Your task to perform on an android device: What's the news in Vietnam? Image 0: 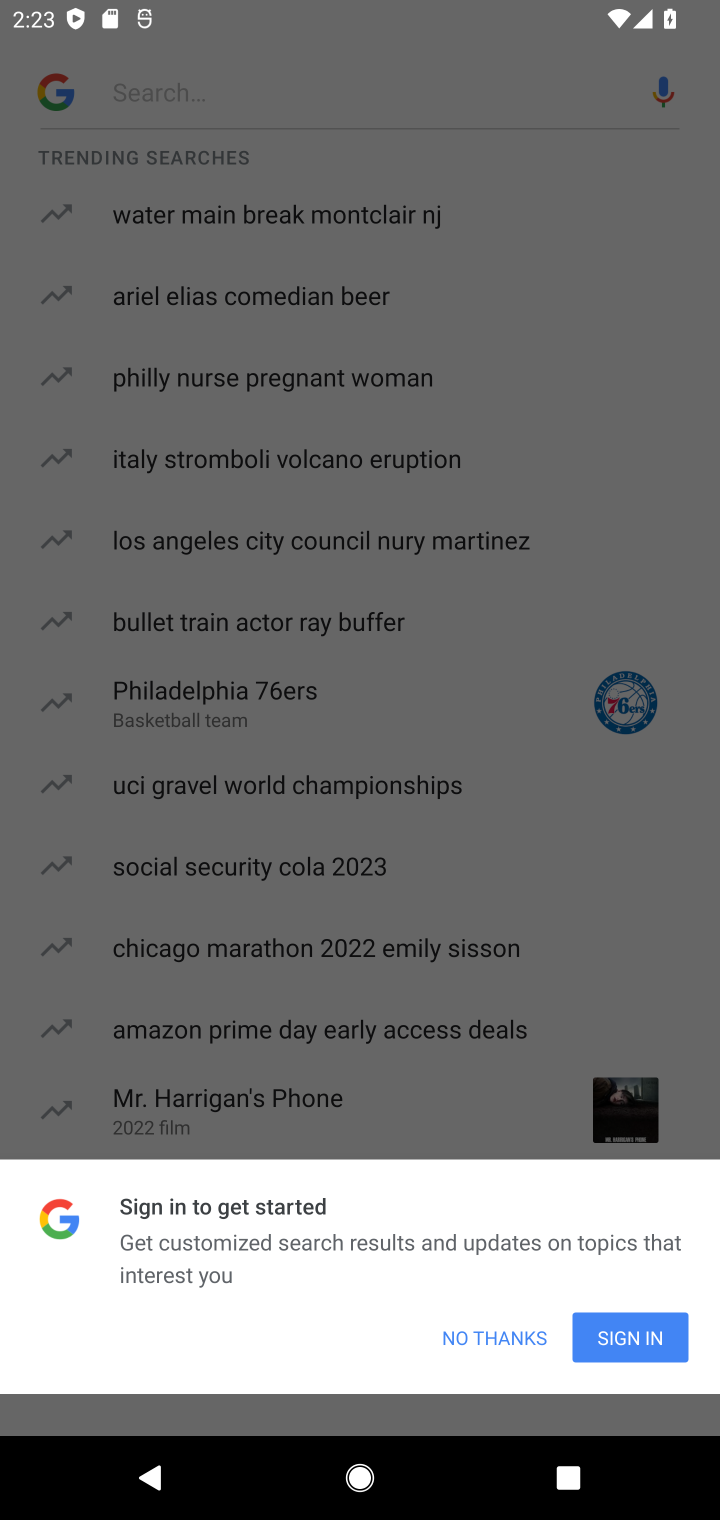
Step 0: click (484, 1333)
Your task to perform on an android device: What's the news in Vietnam? Image 1: 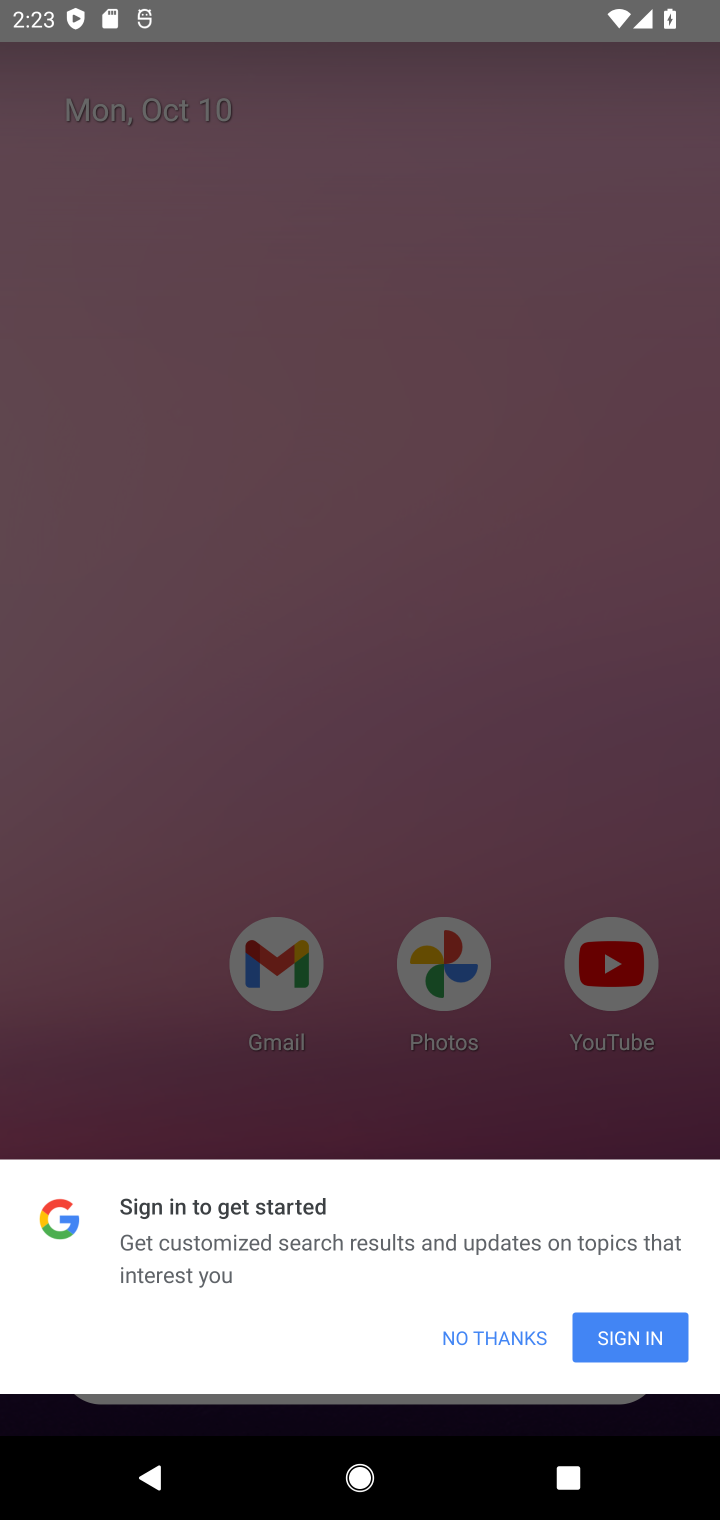
Step 1: click (494, 1325)
Your task to perform on an android device: What's the news in Vietnam? Image 2: 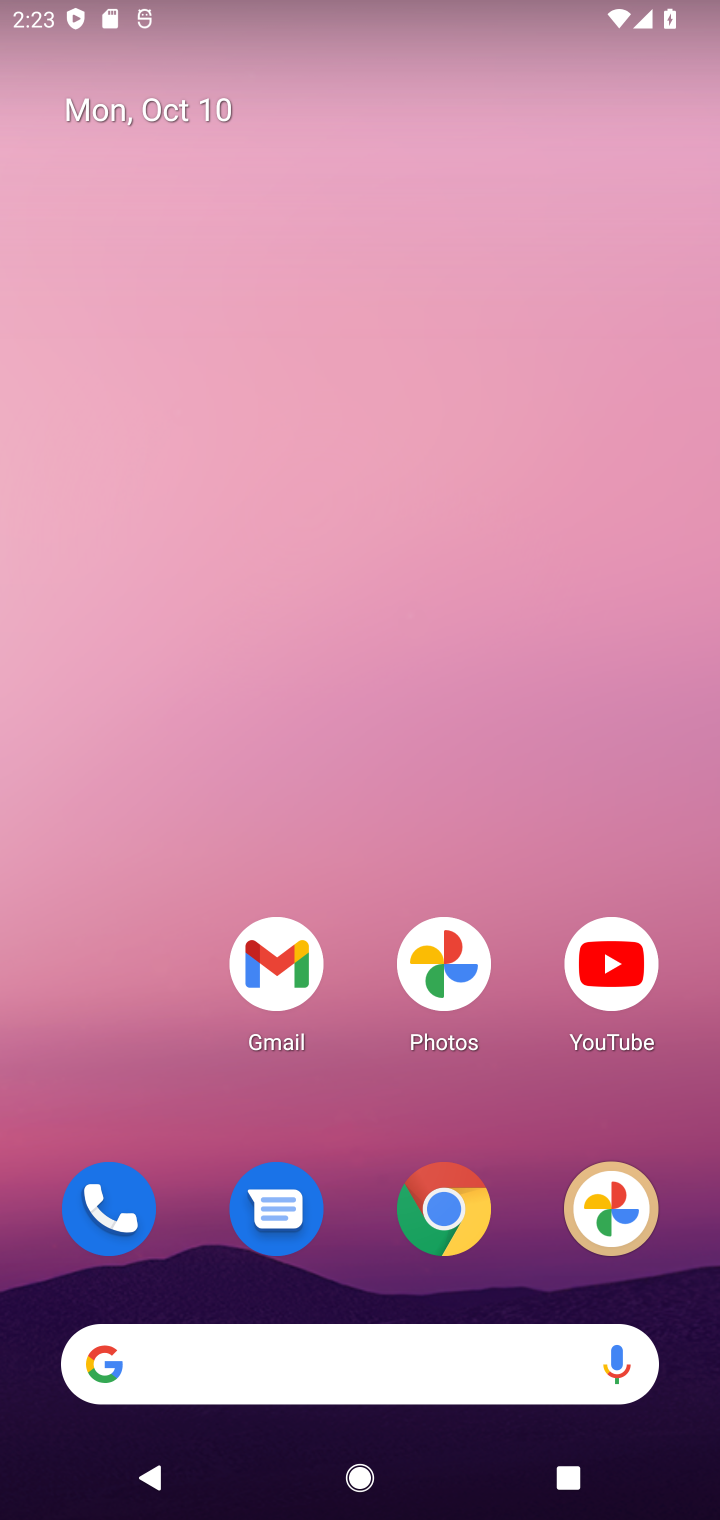
Step 2: click (464, 1177)
Your task to perform on an android device: What's the news in Vietnam? Image 3: 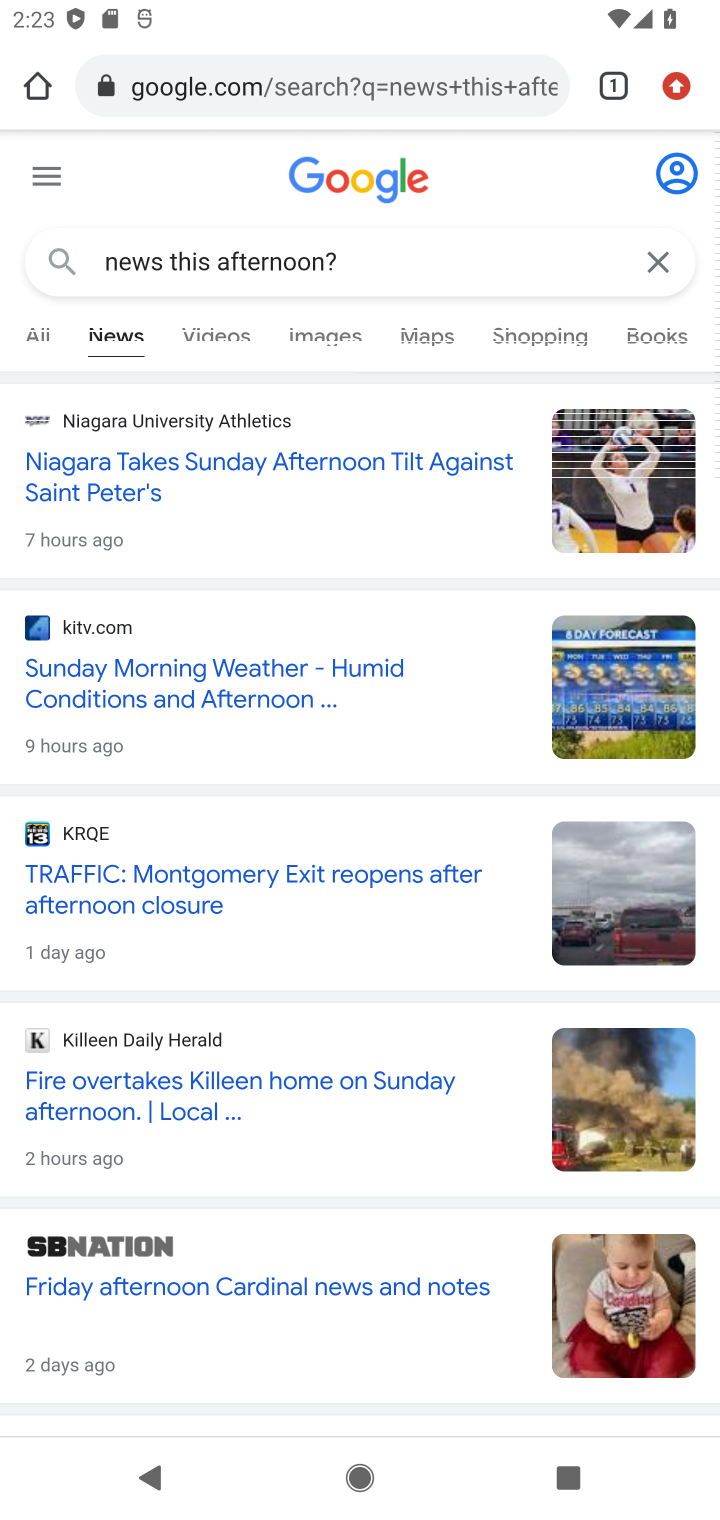
Step 3: click (404, 258)
Your task to perform on an android device: What's the news in Vietnam? Image 4: 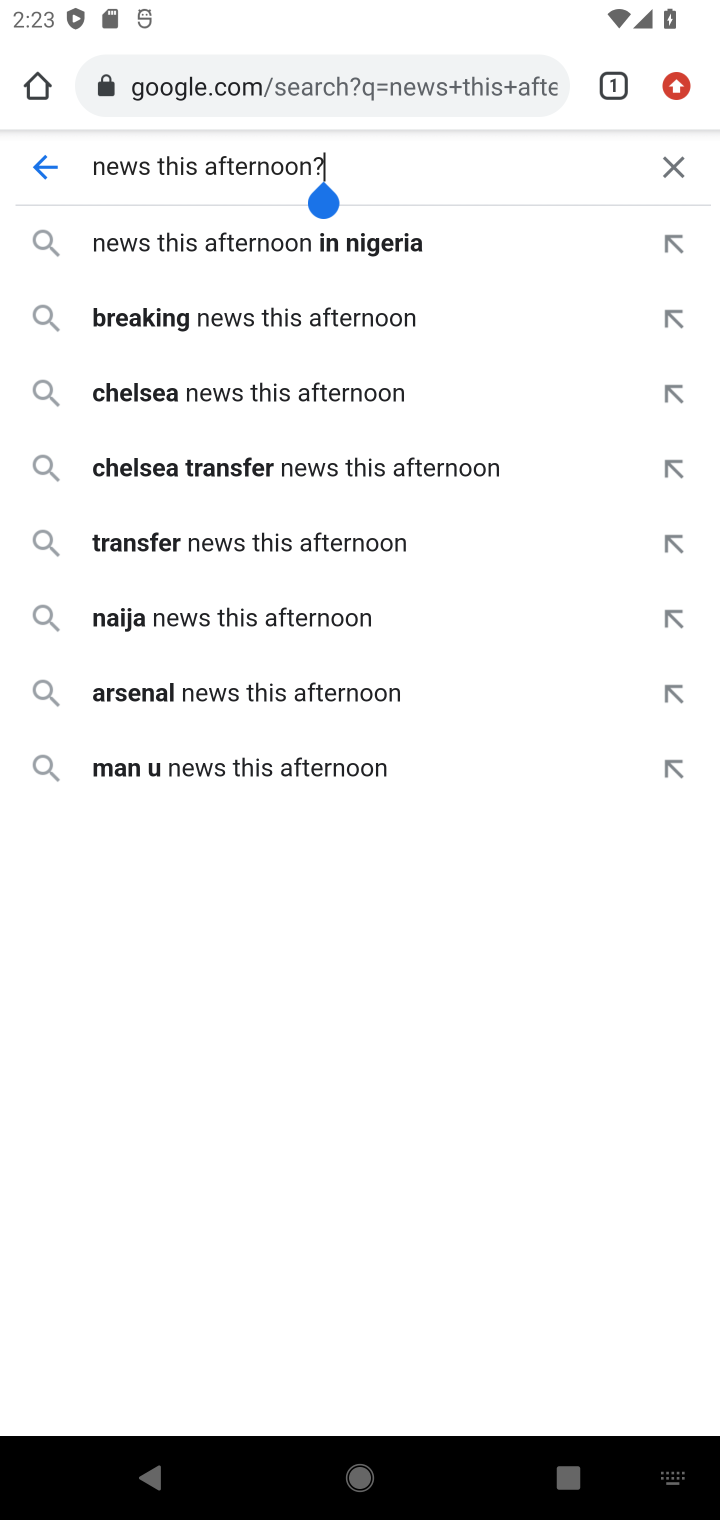
Step 4: click (665, 171)
Your task to perform on an android device: What's the news in Vietnam? Image 5: 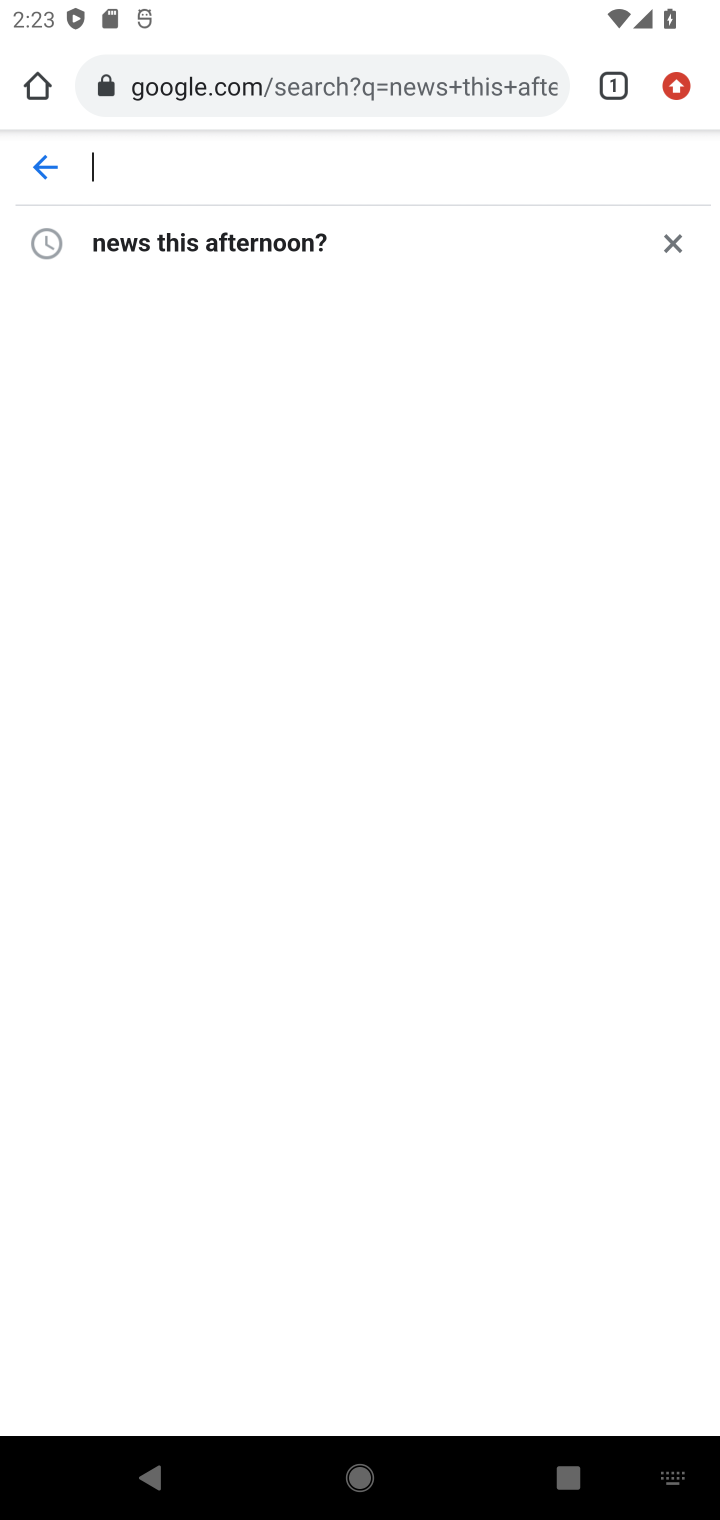
Step 5: type "news in Vietnam?"
Your task to perform on an android device: What's the news in Vietnam? Image 6: 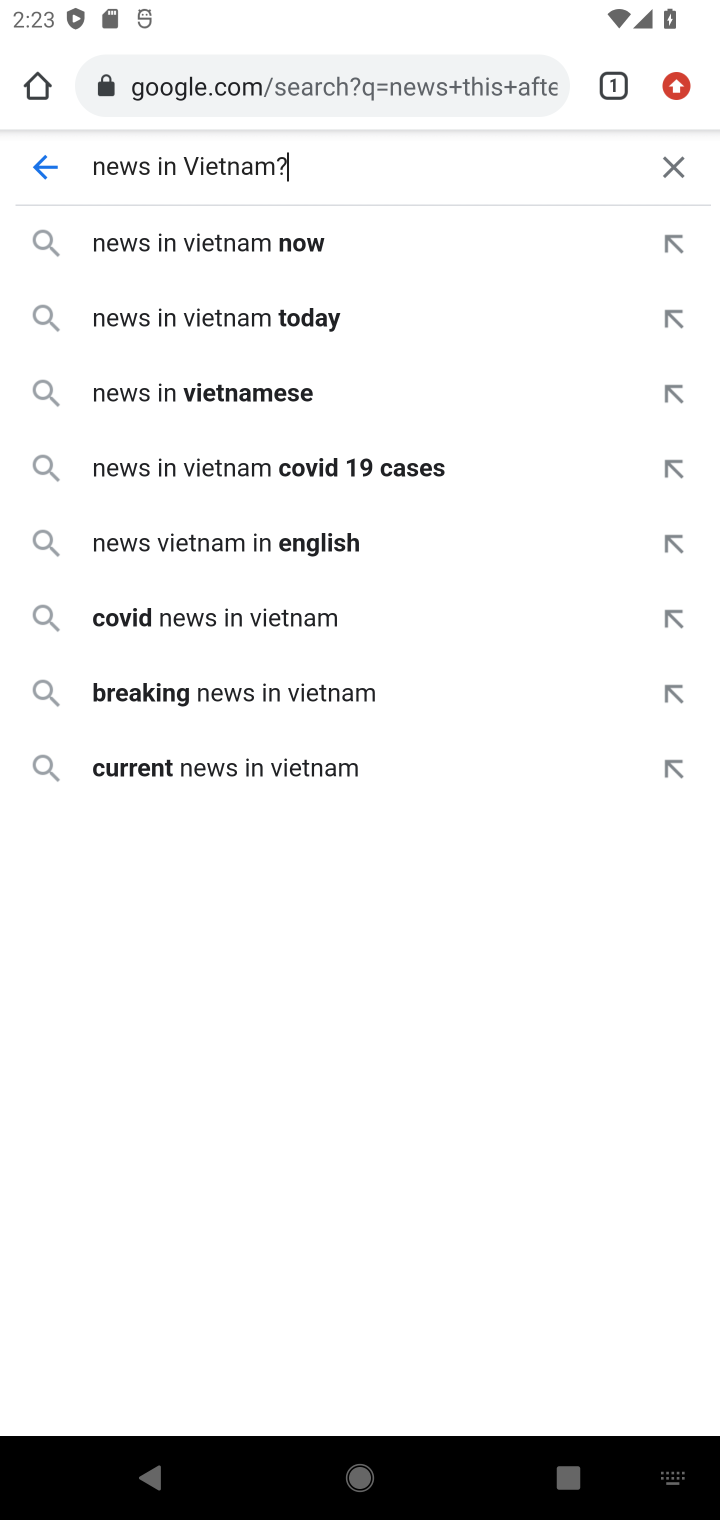
Step 6: press enter
Your task to perform on an android device: What's the news in Vietnam? Image 7: 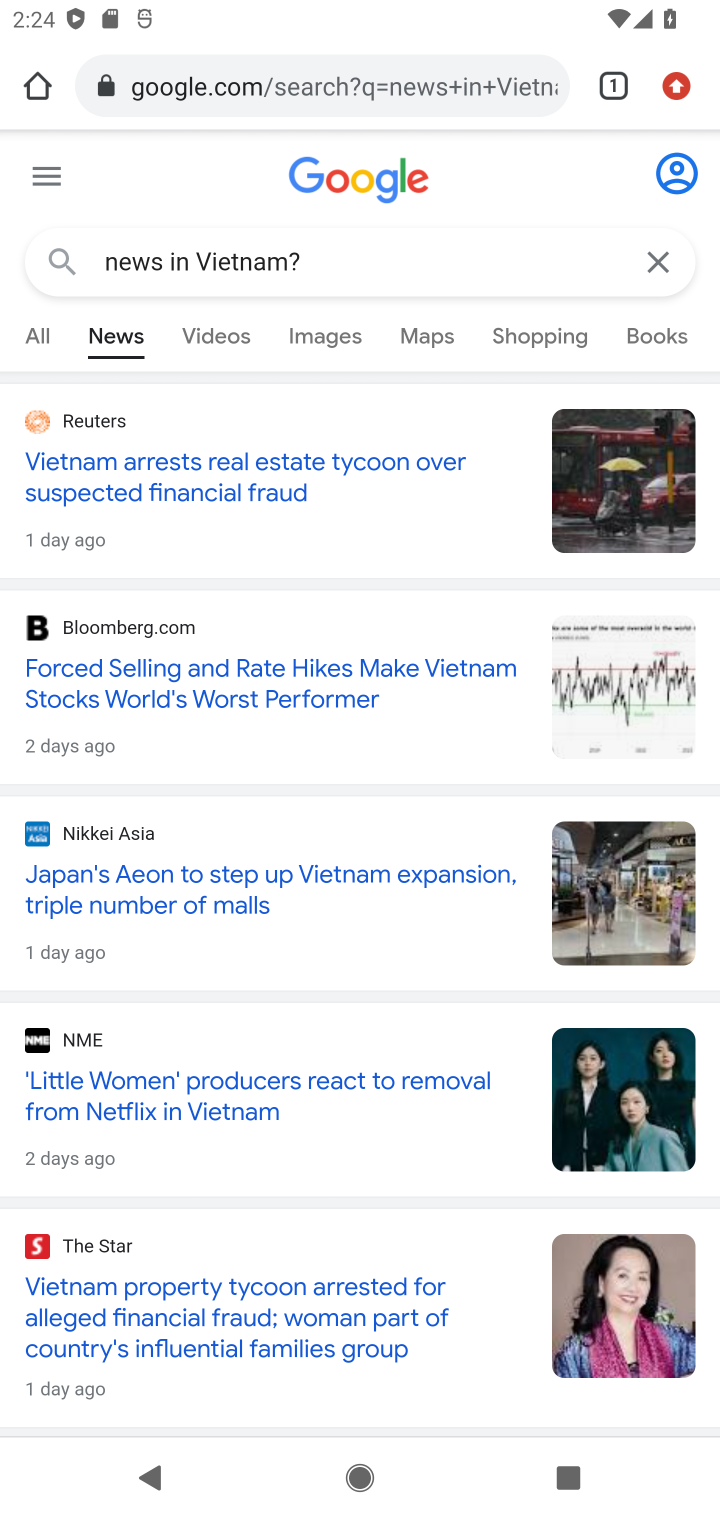
Step 7: task complete